Your task to perform on an android device: uninstall "Pinterest" Image 0: 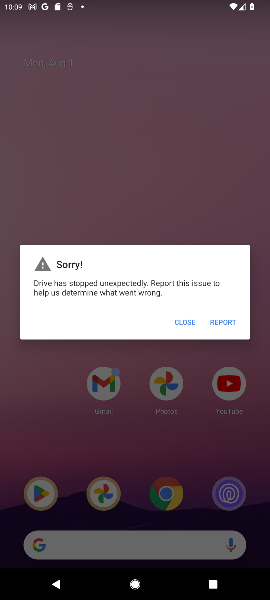
Step 0: click (188, 331)
Your task to perform on an android device: uninstall "Pinterest" Image 1: 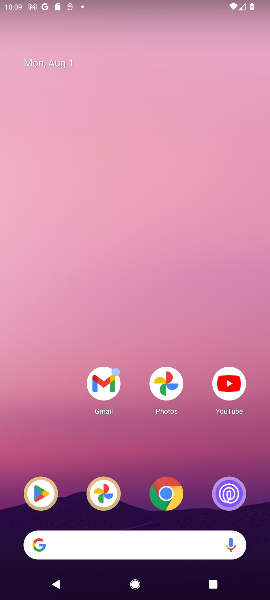
Step 1: drag from (71, 531) to (137, 18)
Your task to perform on an android device: uninstall "Pinterest" Image 2: 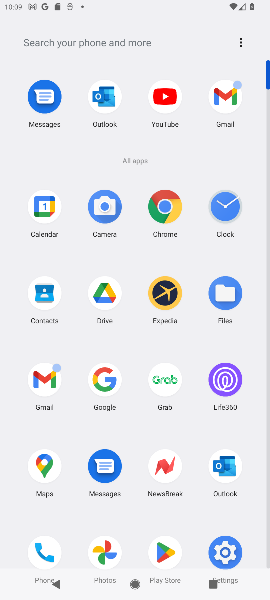
Step 2: click (147, 44)
Your task to perform on an android device: uninstall "Pinterest" Image 3: 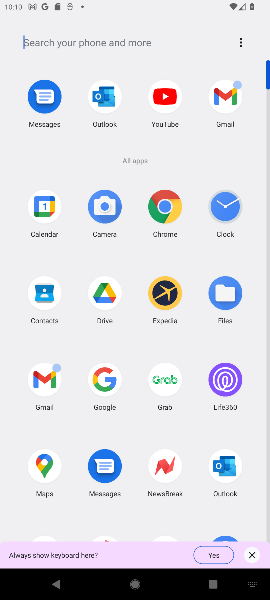
Step 3: type "pinstere"
Your task to perform on an android device: uninstall "Pinterest" Image 4: 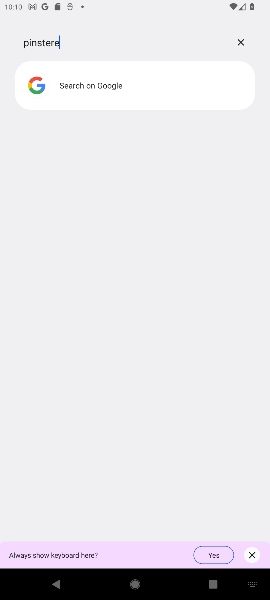
Step 4: press home button
Your task to perform on an android device: uninstall "Pinterest" Image 5: 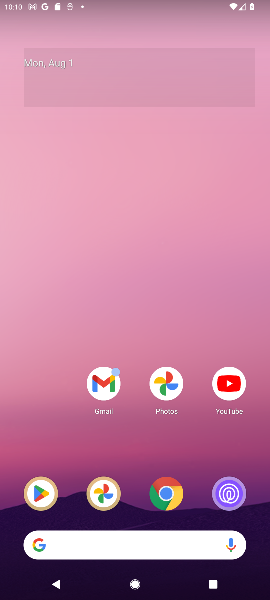
Step 5: click (38, 496)
Your task to perform on an android device: uninstall "Pinterest" Image 6: 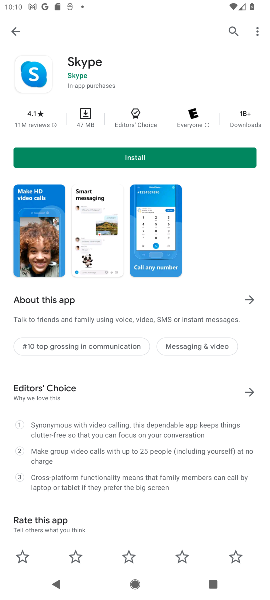
Step 6: click (233, 32)
Your task to perform on an android device: uninstall "Pinterest" Image 7: 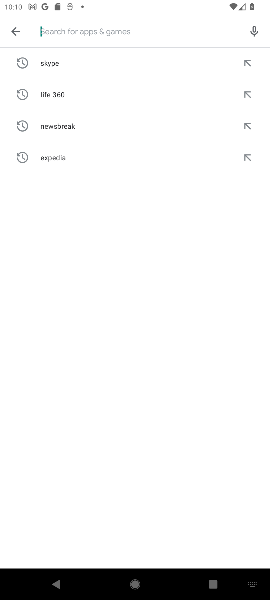
Step 7: type "pintresrt"
Your task to perform on an android device: uninstall "Pinterest" Image 8: 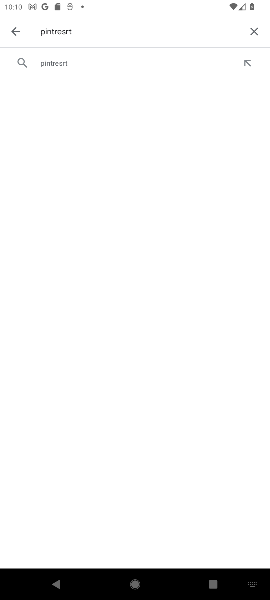
Step 8: click (76, 71)
Your task to perform on an android device: uninstall "Pinterest" Image 9: 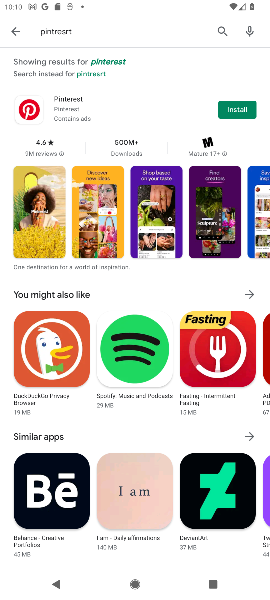
Step 9: click (240, 108)
Your task to perform on an android device: uninstall "Pinterest" Image 10: 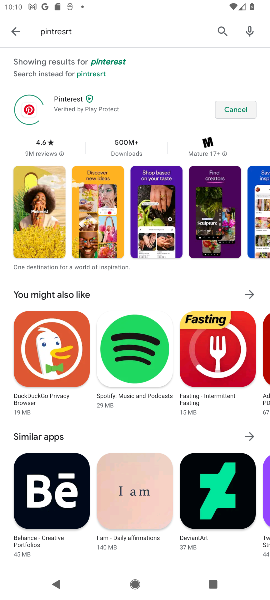
Step 10: task complete